Your task to perform on an android device: Open eBay Image 0: 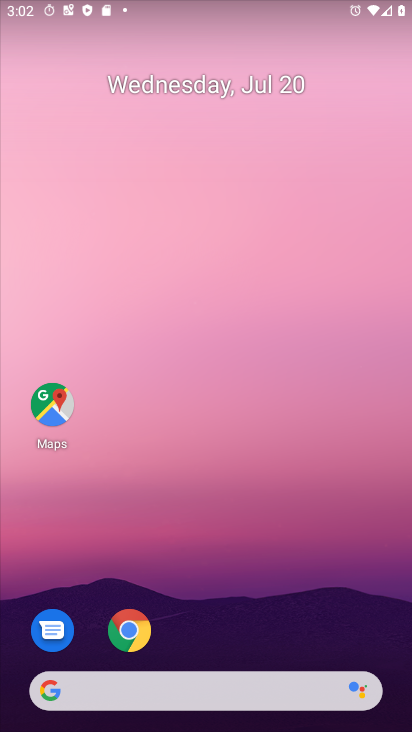
Step 0: click (123, 623)
Your task to perform on an android device: Open eBay Image 1: 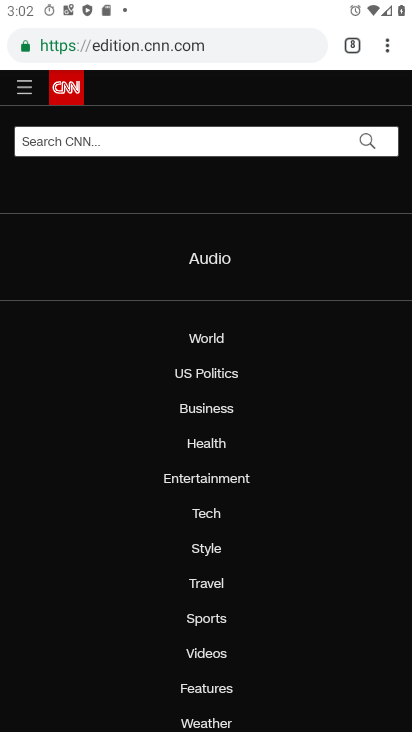
Step 1: drag from (383, 48) to (272, 85)
Your task to perform on an android device: Open eBay Image 2: 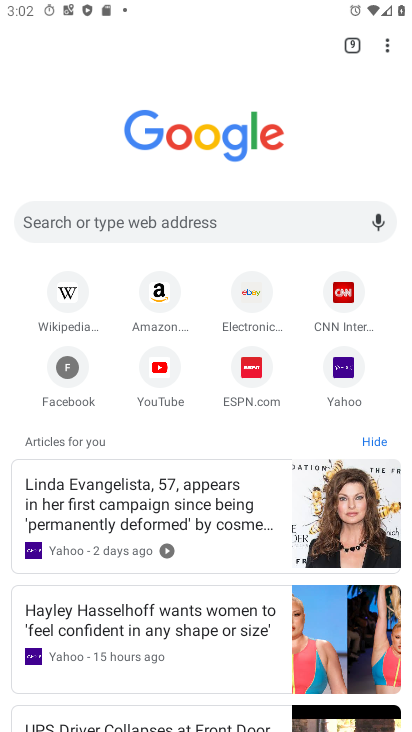
Step 2: click (248, 308)
Your task to perform on an android device: Open eBay Image 3: 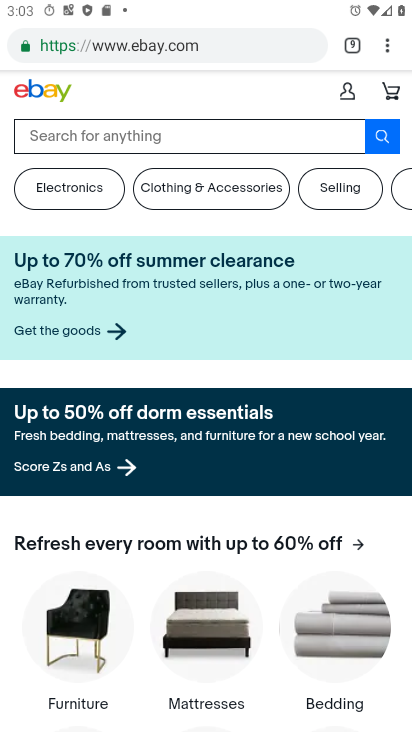
Step 3: task complete